Your task to perform on an android device: turn off smart reply in the gmail app Image 0: 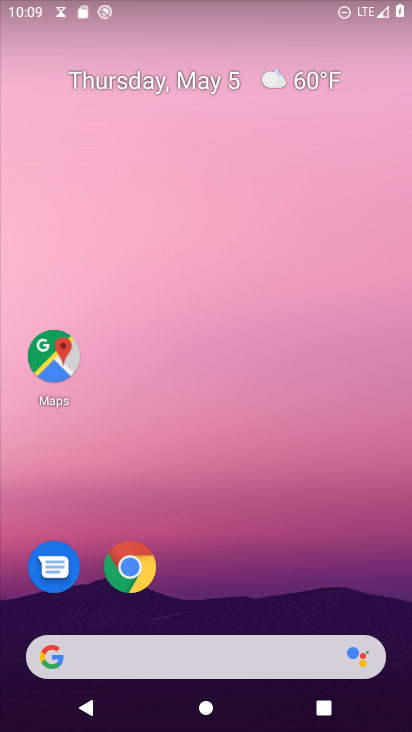
Step 0: drag from (221, 725) to (222, 124)
Your task to perform on an android device: turn off smart reply in the gmail app Image 1: 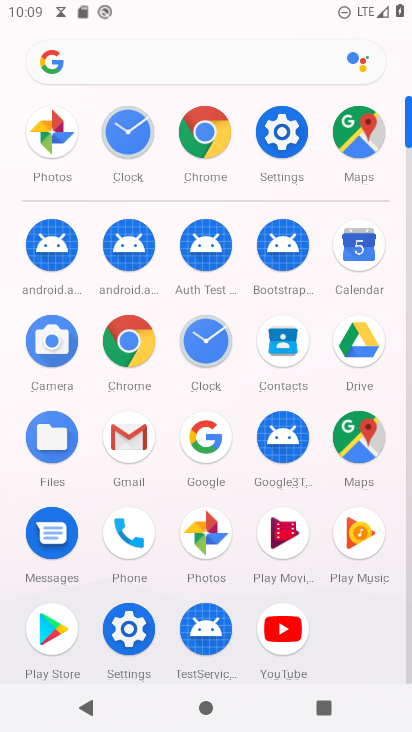
Step 1: click (121, 443)
Your task to perform on an android device: turn off smart reply in the gmail app Image 2: 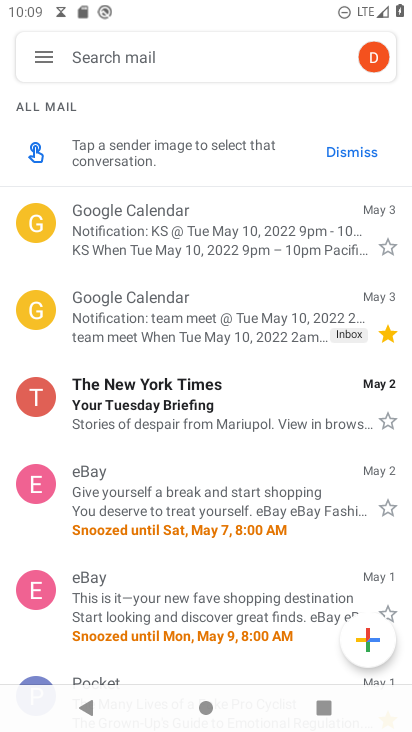
Step 2: click (39, 55)
Your task to perform on an android device: turn off smart reply in the gmail app Image 3: 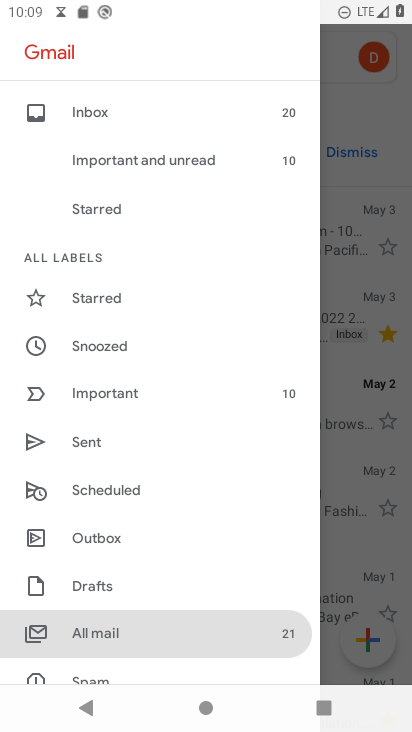
Step 3: drag from (144, 672) to (135, 235)
Your task to perform on an android device: turn off smart reply in the gmail app Image 4: 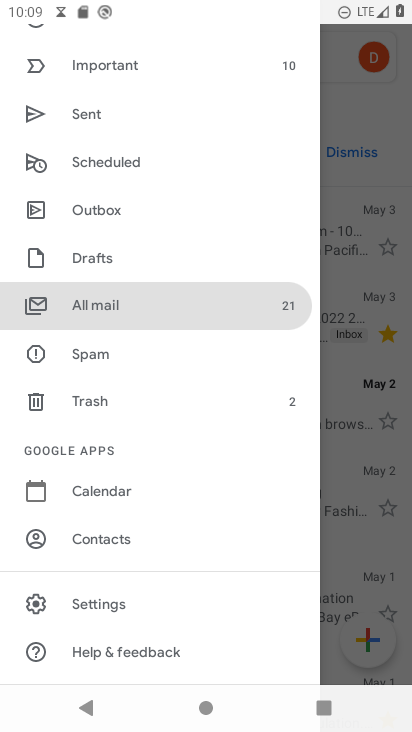
Step 4: click (98, 599)
Your task to perform on an android device: turn off smart reply in the gmail app Image 5: 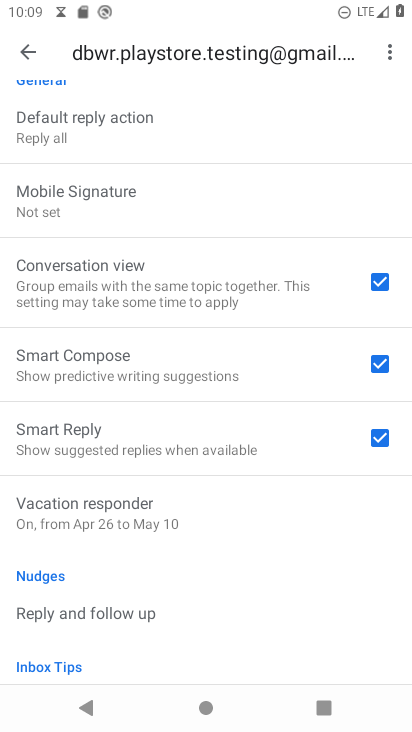
Step 5: click (377, 435)
Your task to perform on an android device: turn off smart reply in the gmail app Image 6: 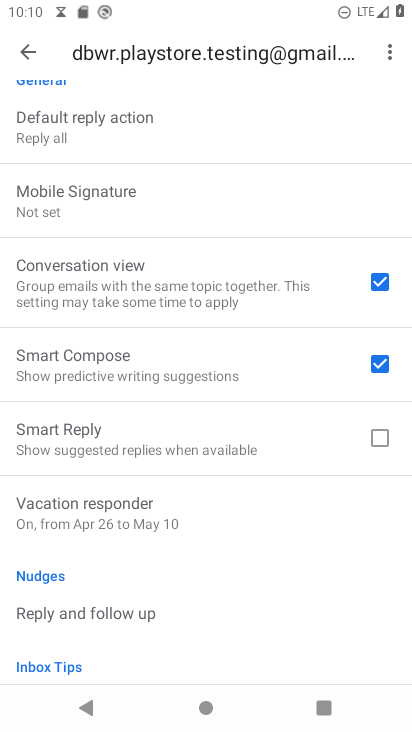
Step 6: task complete